Your task to perform on an android device: install app "Adobe Express: Graphic Design" Image 0: 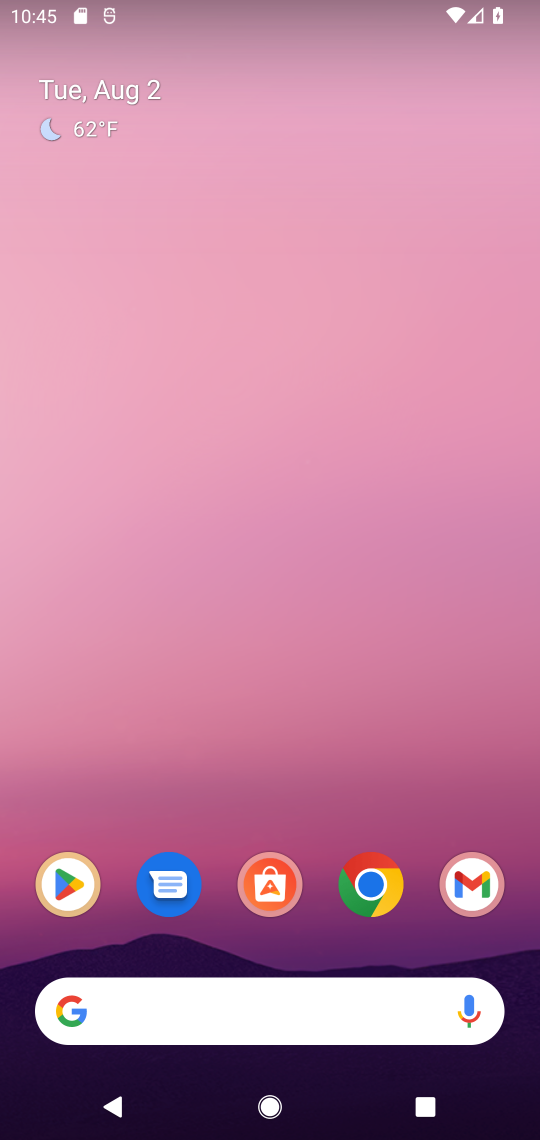
Step 0: click (66, 890)
Your task to perform on an android device: install app "Adobe Express: Graphic Design" Image 1: 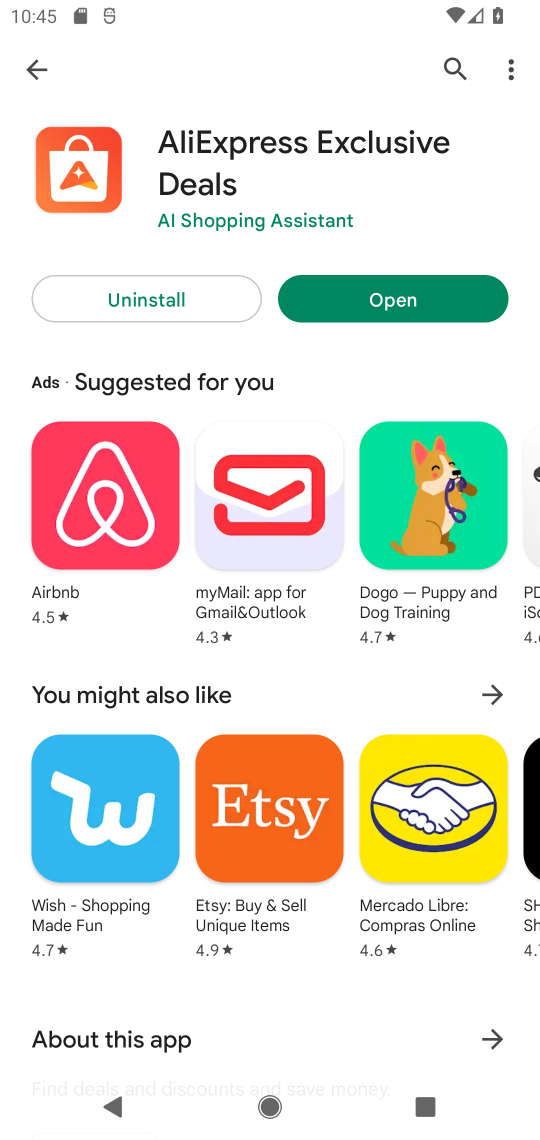
Step 1: click (29, 64)
Your task to perform on an android device: install app "Adobe Express: Graphic Design" Image 2: 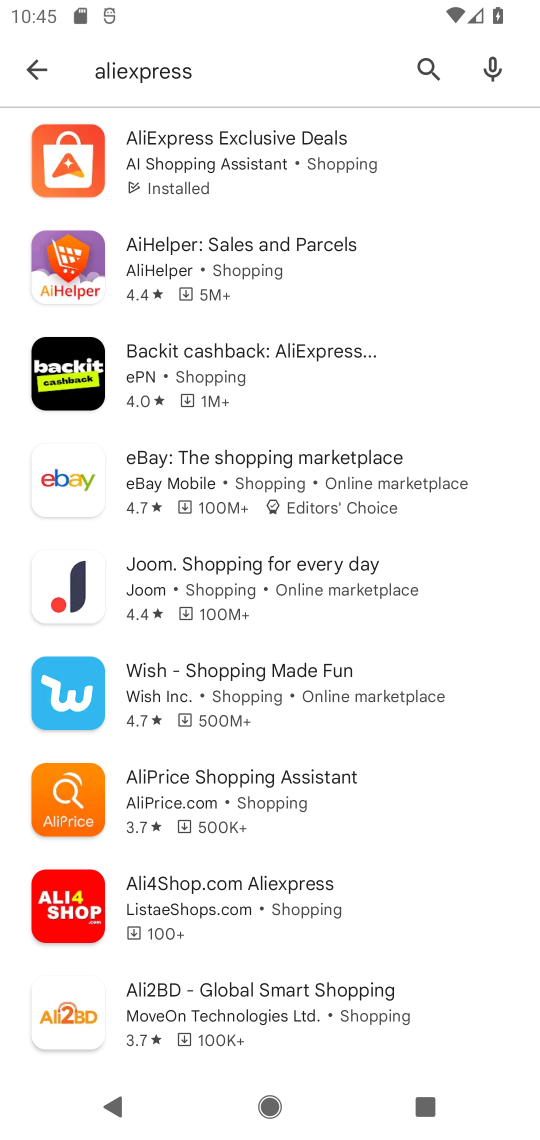
Step 2: click (222, 78)
Your task to perform on an android device: install app "Adobe Express: Graphic Design" Image 3: 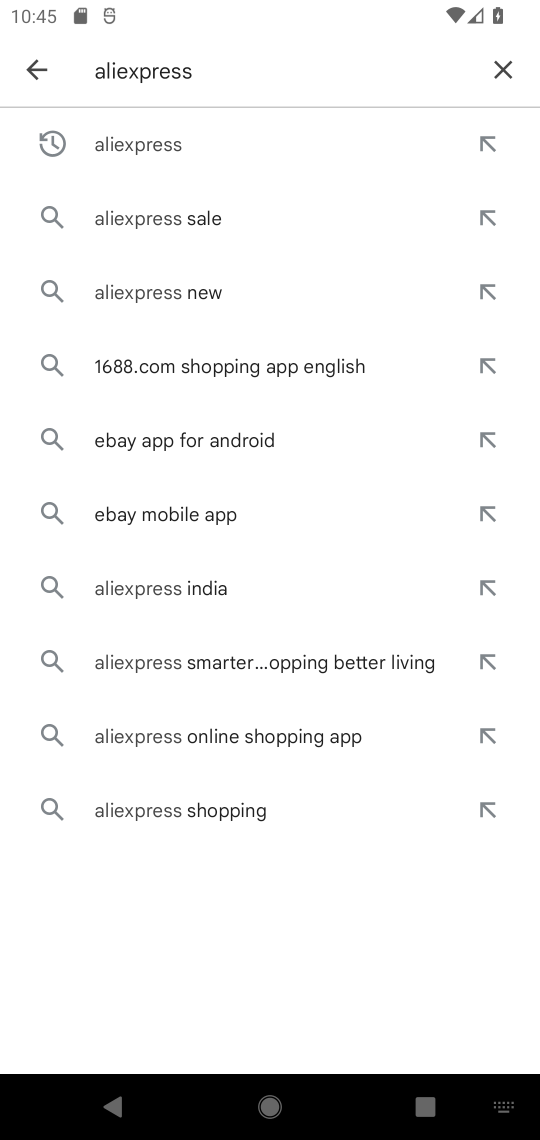
Step 3: click (501, 68)
Your task to perform on an android device: install app "Adobe Express: Graphic Design" Image 4: 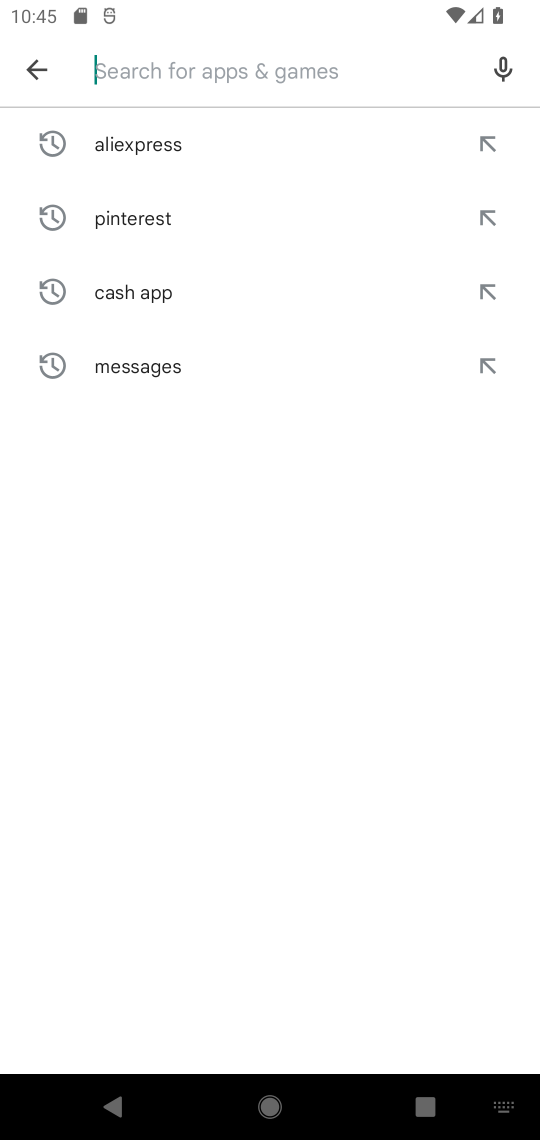
Step 4: type "Adobe Express"
Your task to perform on an android device: install app "Adobe Express: Graphic Design" Image 5: 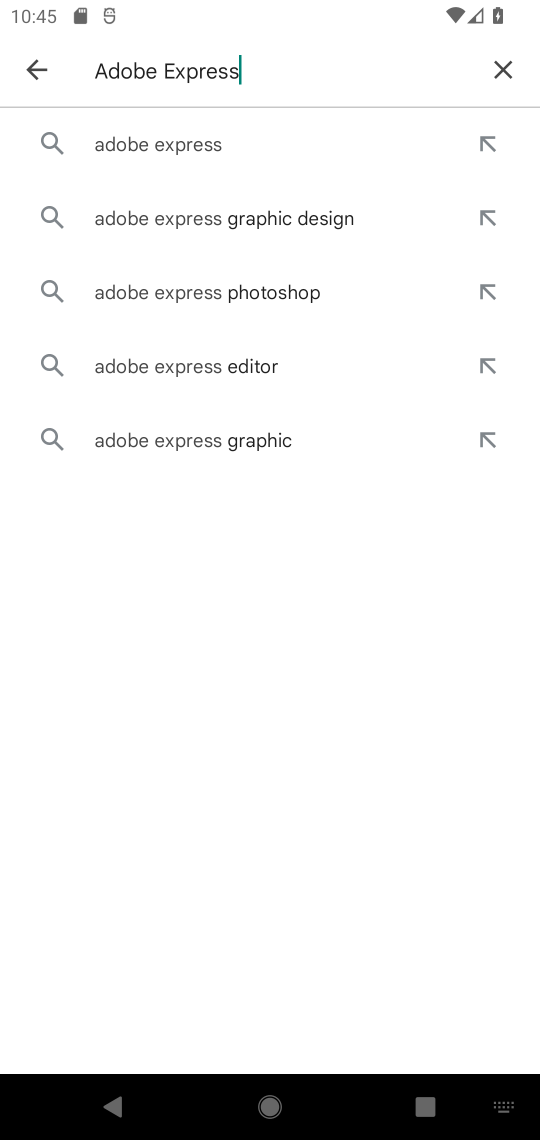
Step 5: click (150, 143)
Your task to perform on an android device: install app "Adobe Express: Graphic Design" Image 6: 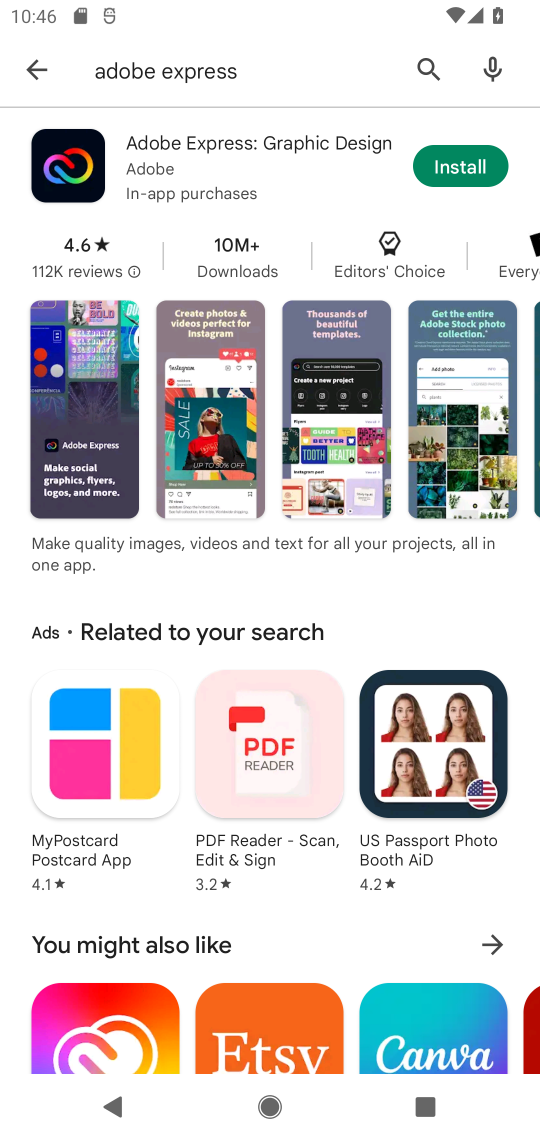
Step 6: click (462, 173)
Your task to perform on an android device: install app "Adobe Express: Graphic Design" Image 7: 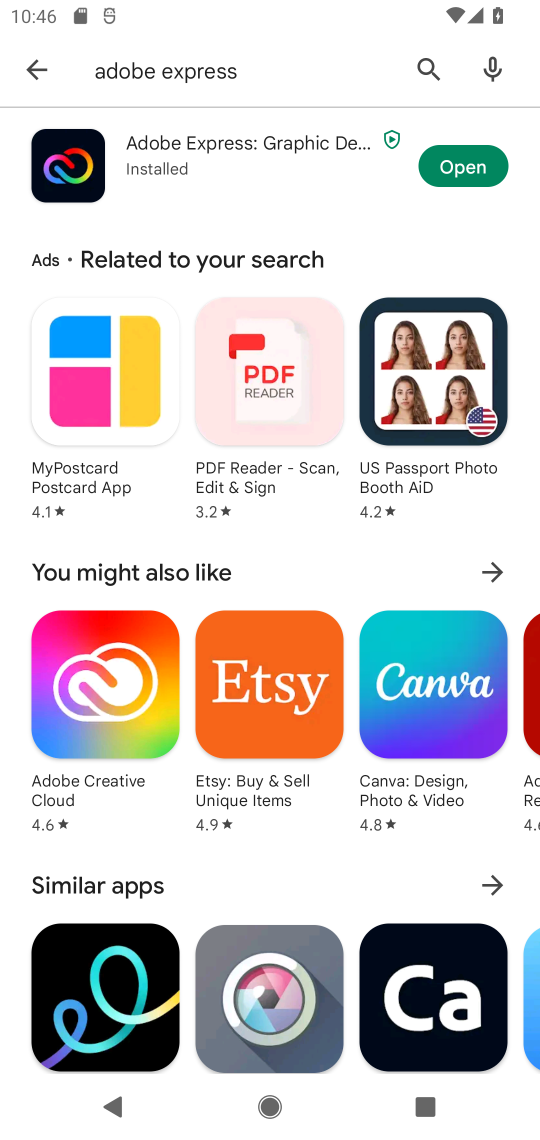
Step 7: task complete